Your task to perform on an android device: set the stopwatch Image 0: 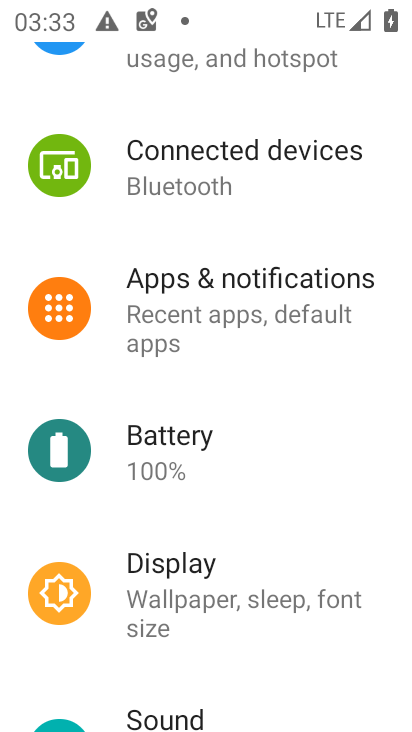
Step 0: press home button
Your task to perform on an android device: set the stopwatch Image 1: 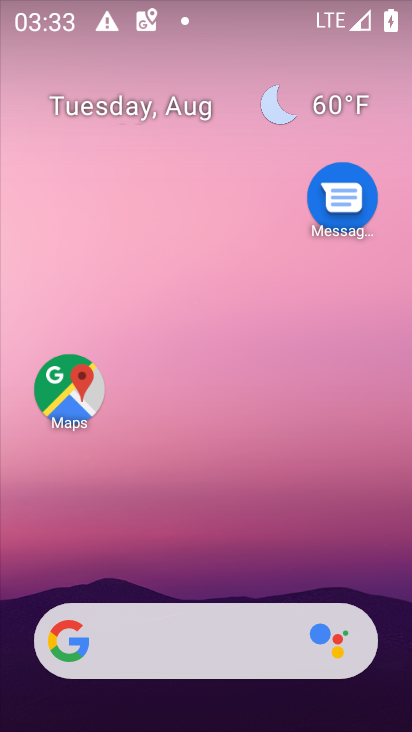
Step 1: drag from (237, 584) to (227, 23)
Your task to perform on an android device: set the stopwatch Image 2: 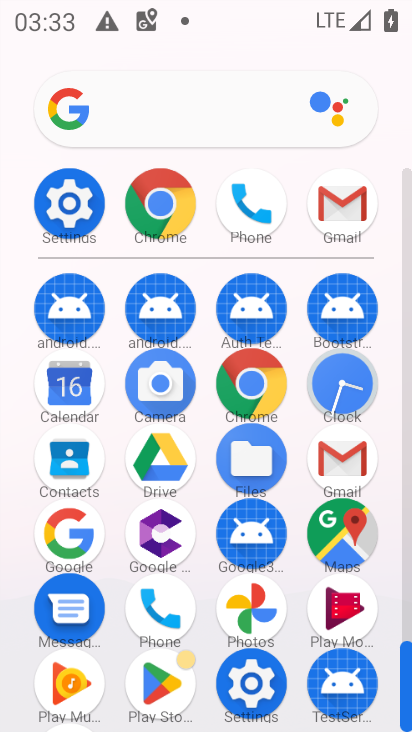
Step 2: click (322, 395)
Your task to perform on an android device: set the stopwatch Image 3: 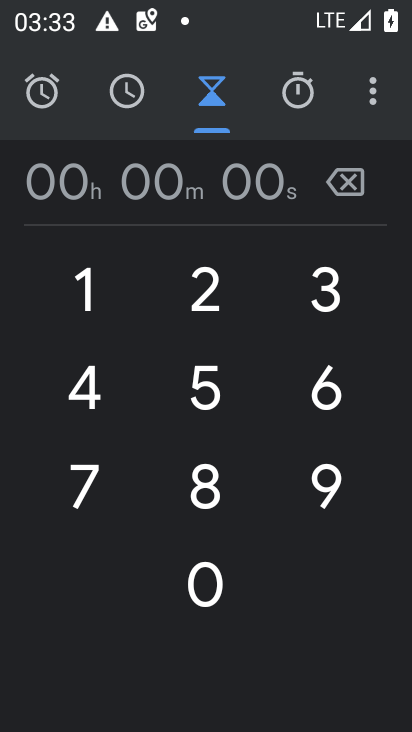
Step 3: click (278, 100)
Your task to perform on an android device: set the stopwatch Image 4: 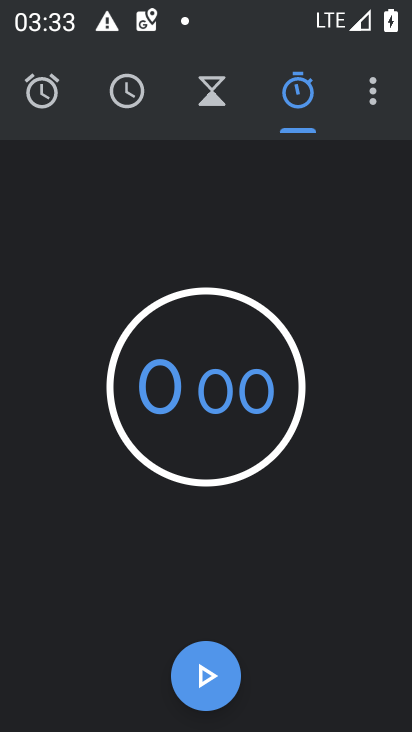
Step 4: task complete